Your task to perform on an android device: Open network settings Image 0: 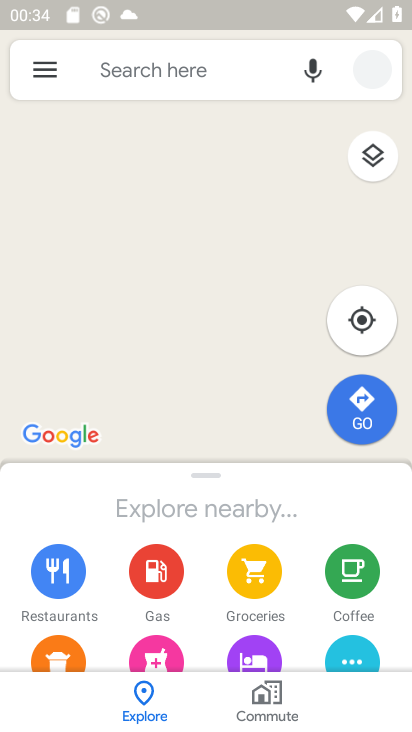
Step 0: press home button
Your task to perform on an android device: Open network settings Image 1: 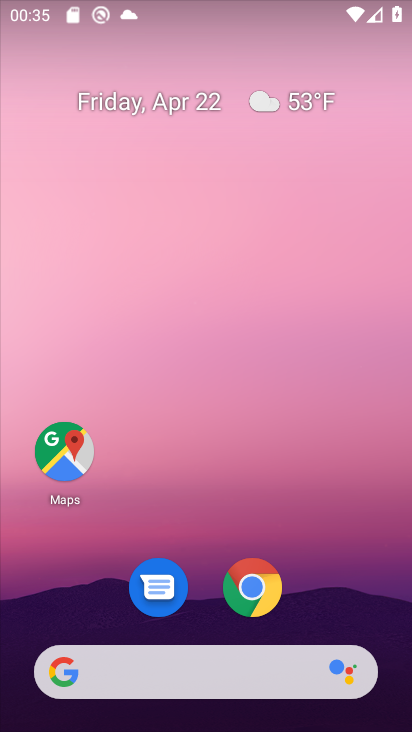
Step 1: drag from (319, 543) to (335, 158)
Your task to perform on an android device: Open network settings Image 2: 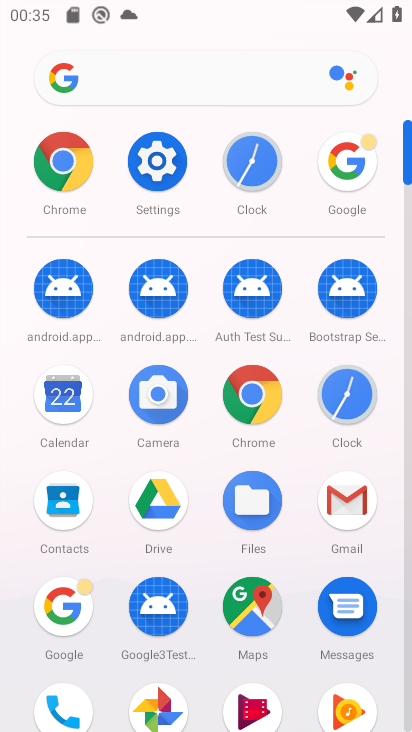
Step 2: click (163, 163)
Your task to perform on an android device: Open network settings Image 3: 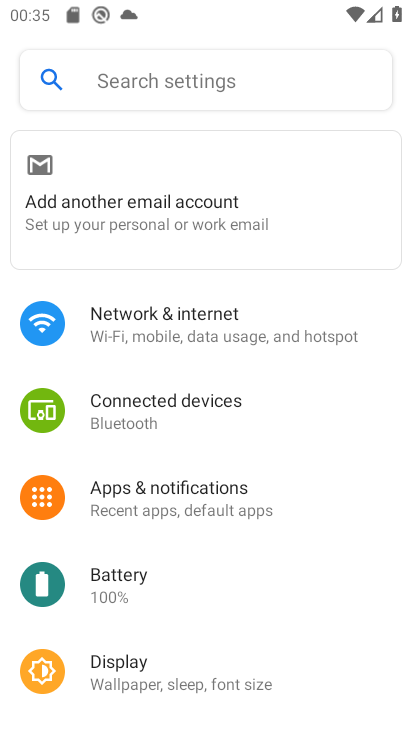
Step 3: click (115, 325)
Your task to perform on an android device: Open network settings Image 4: 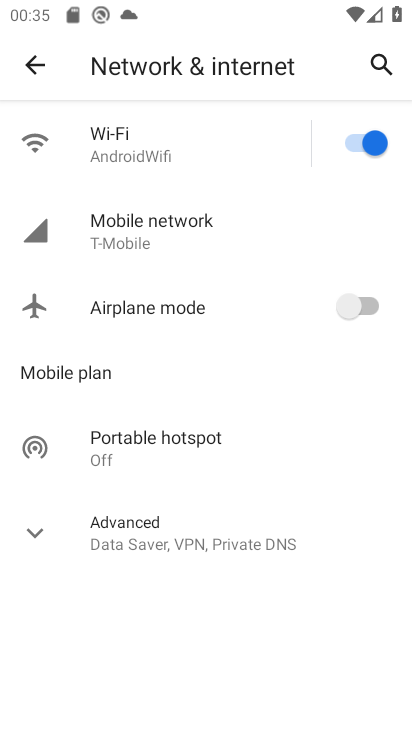
Step 4: task complete